Your task to perform on an android device: turn off data saver in the chrome app Image 0: 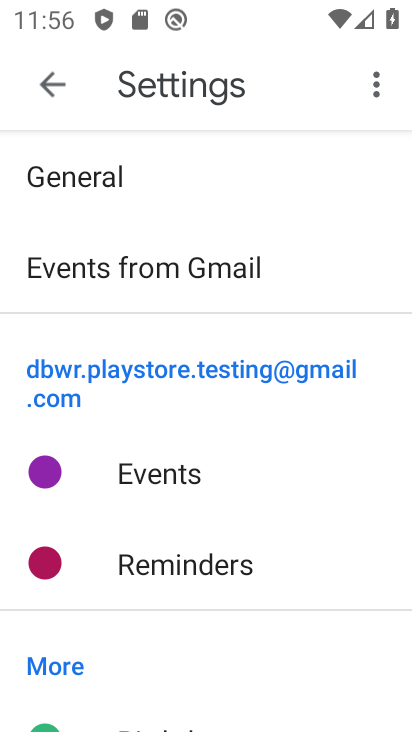
Step 0: press home button
Your task to perform on an android device: turn off data saver in the chrome app Image 1: 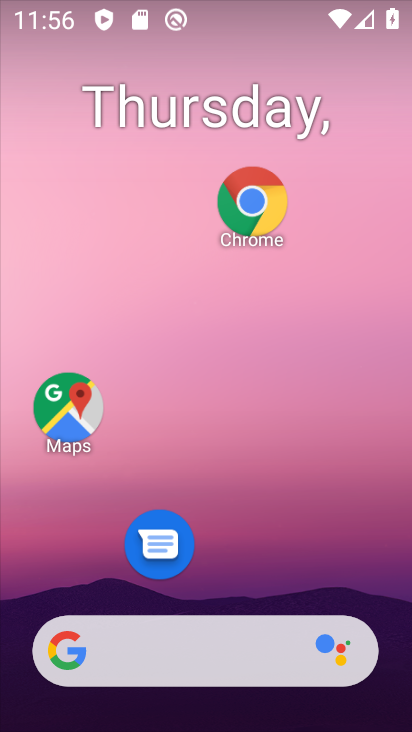
Step 1: drag from (196, 613) to (352, 602)
Your task to perform on an android device: turn off data saver in the chrome app Image 2: 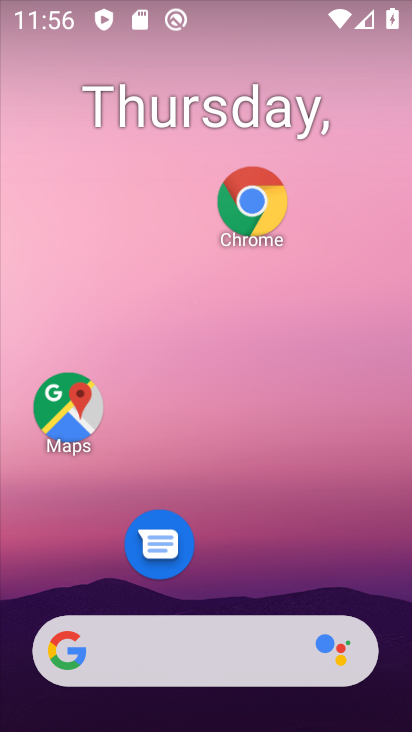
Step 2: drag from (231, 612) to (234, 6)
Your task to perform on an android device: turn off data saver in the chrome app Image 3: 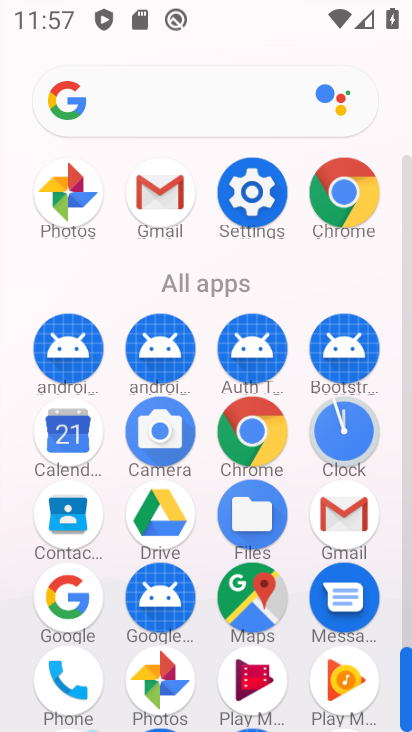
Step 3: click (243, 453)
Your task to perform on an android device: turn off data saver in the chrome app Image 4: 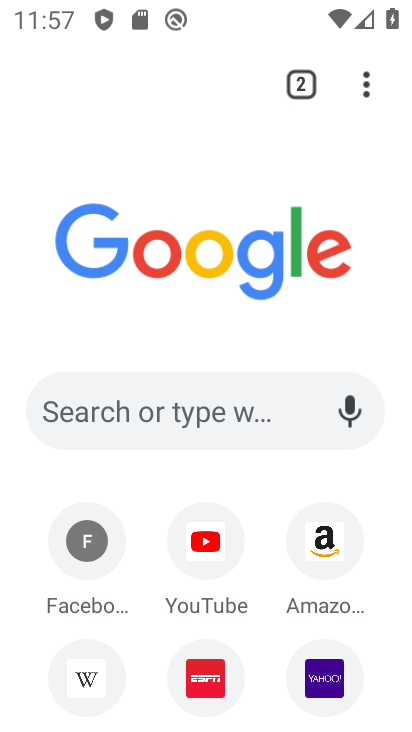
Step 4: drag from (364, 89) to (101, 589)
Your task to perform on an android device: turn off data saver in the chrome app Image 5: 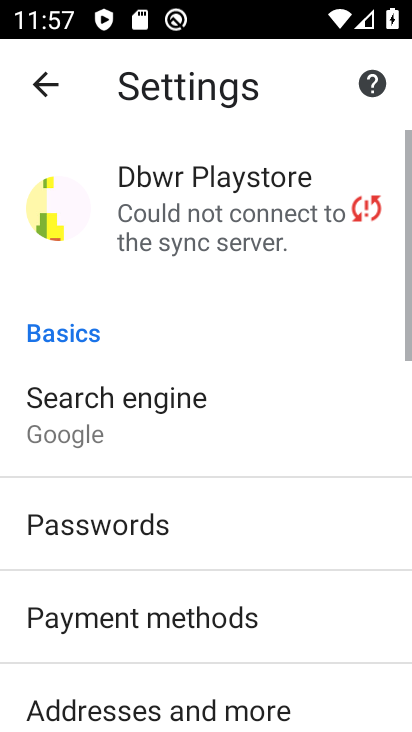
Step 5: drag from (152, 630) to (113, 124)
Your task to perform on an android device: turn off data saver in the chrome app Image 6: 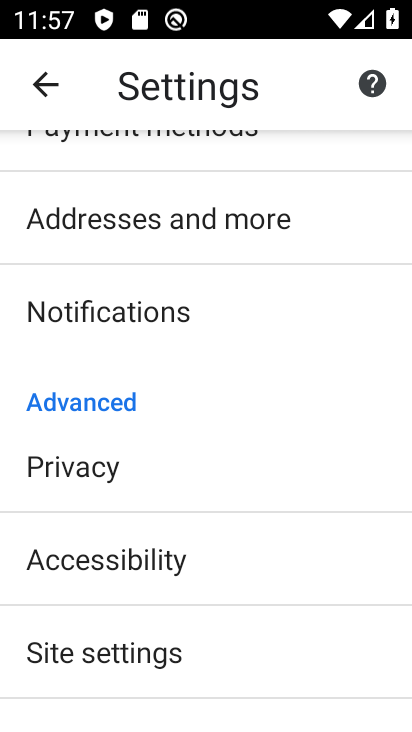
Step 6: drag from (134, 633) to (105, 225)
Your task to perform on an android device: turn off data saver in the chrome app Image 7: 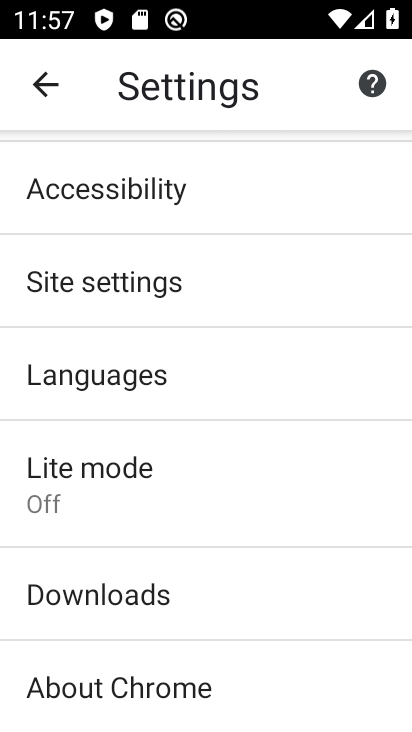
Step 7: click (116, 525)
Your task to perform on an android device: turn off data saver in the chrome app Image 8: 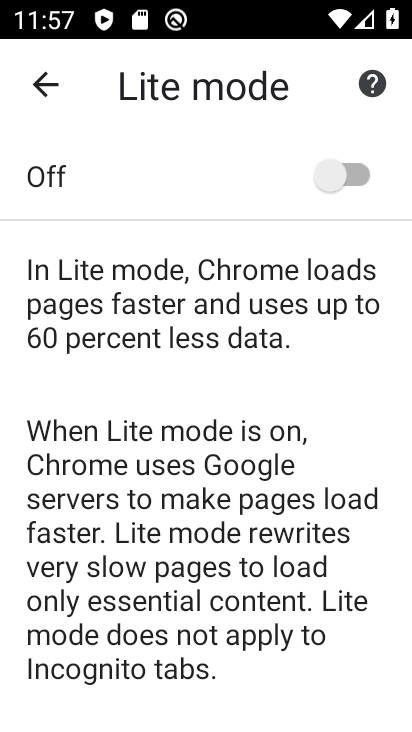
Step 8: task complete